Your task to perform on an android device: Open Youtube and go to "Your channel" Image 0: 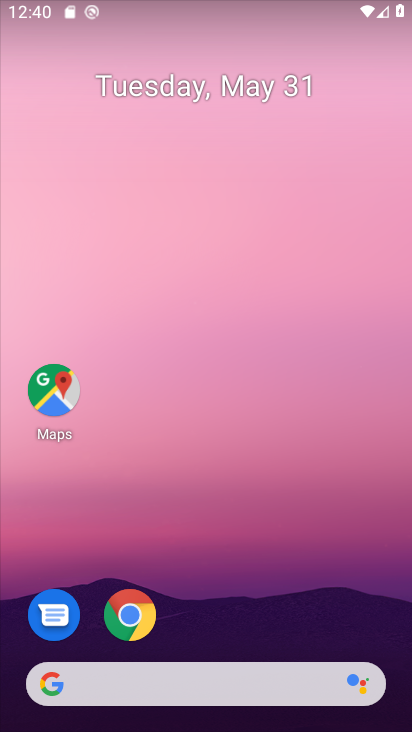
Step 0: drag from (241, 564) to (260, 169)
Your task to perform on an android device: Open Youtube and go to "Your channel" Image 1: 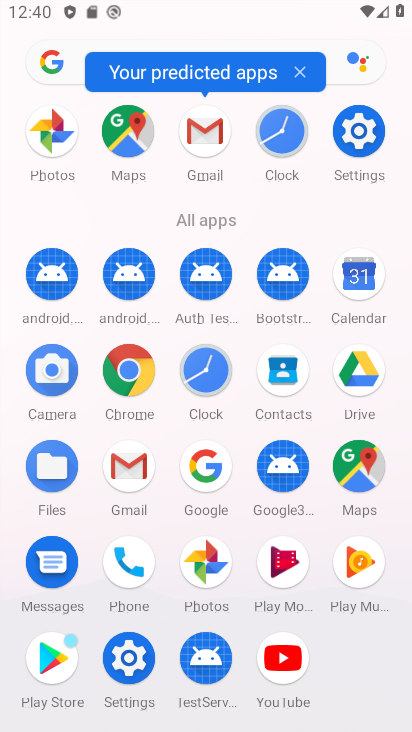
Step 1: click (286, 668)
Your task to perform on an android device: Open Youtube and go to "Your channel" Image 2: 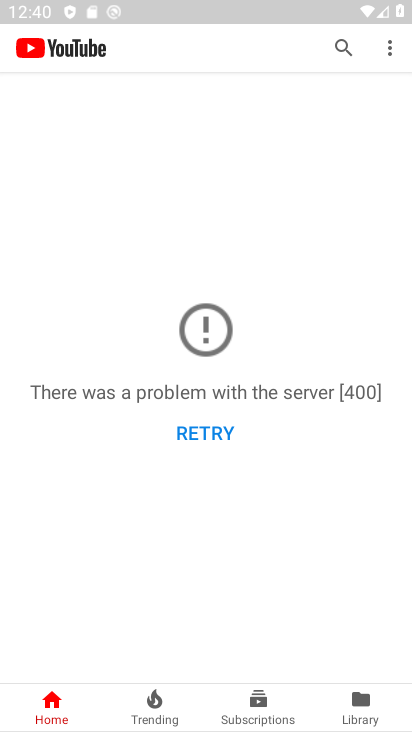
Step 2: task complete